Your task to perform on an android device: turn off sleep mode Image 0: 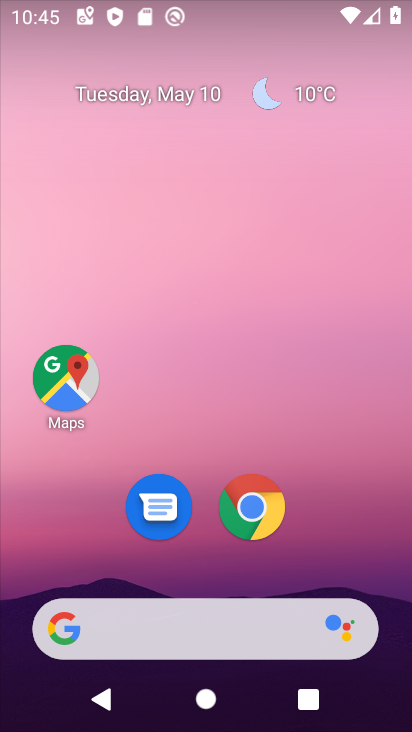
Step 0: drag from (215, 727) to (212, 148)
Your task to perform on an android device: turn off sleep mode Image 1: 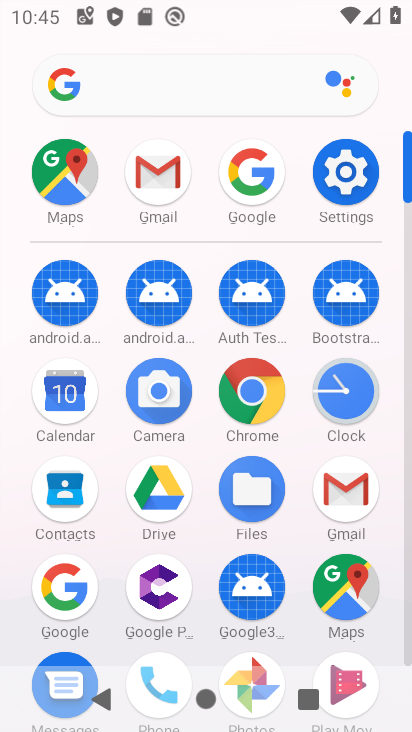
Step 1: click (340, 168)
Your task to perform on an android device: turn off sleep mode Image 2: 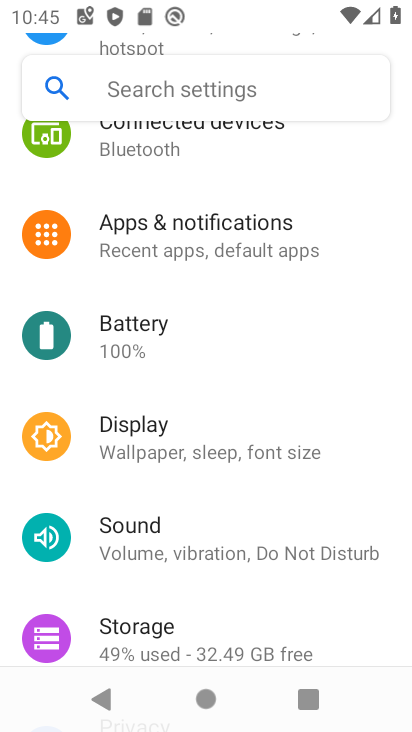
Step 2: click (192, 445)
Your task to perform on an android device: turn off sleep mode Image 3: 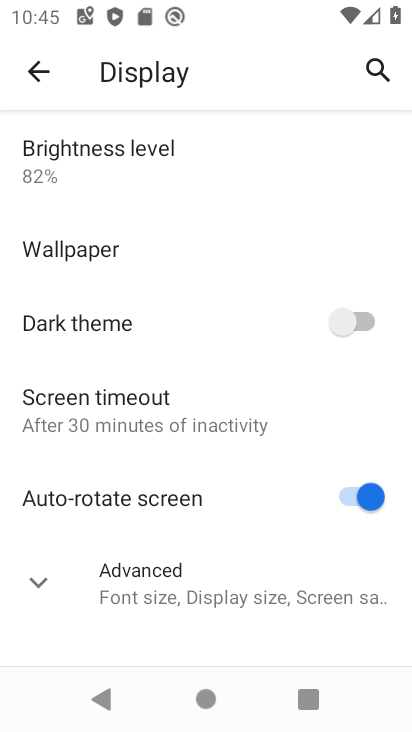
Step 3: click (32, 71)
Your task to perform on an android device: turn off sleep mode Image 4: 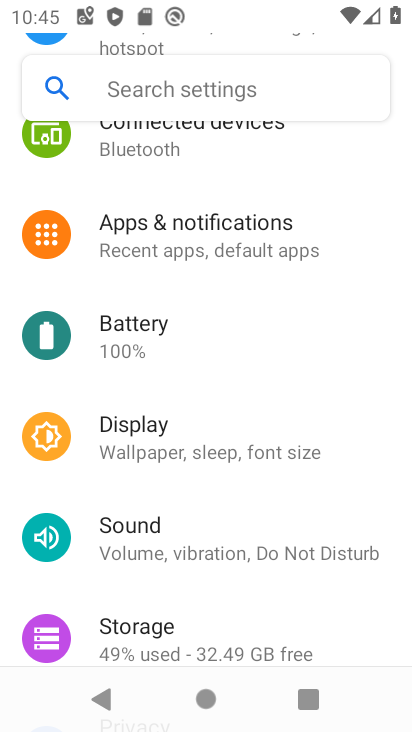
Step 4: task complete